Your task to perform on an android device: toggle improve location accuracy Image 0: 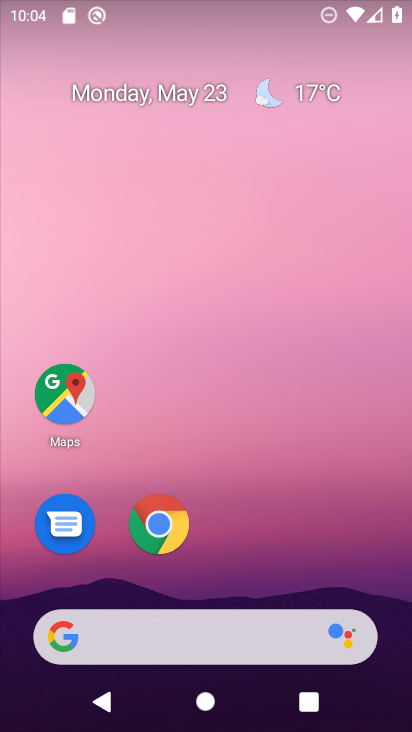
Step 0: drag from (218, 548) to (218, 171)
Your task to perform on an android device: toggle improve location accuracy Image 1: 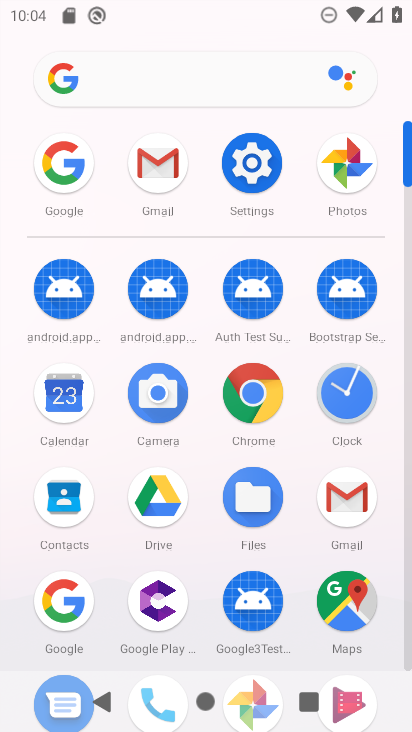
Step 1: click (233, 174)
Your task to perform on an android device: toggle improve location accuracy Image 2: 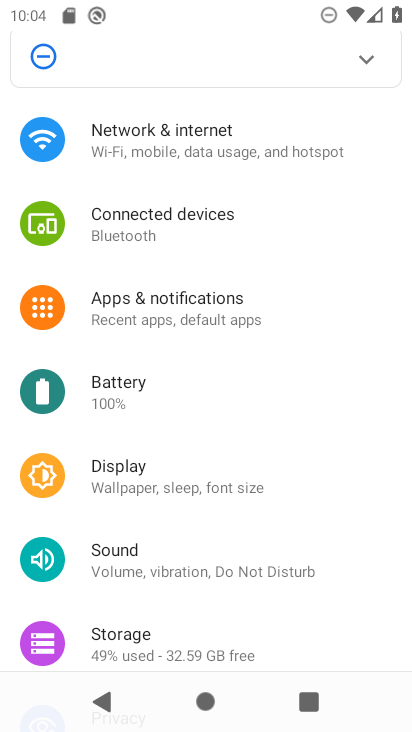
Step 2: drag from (217, 654) to (227, 352)
Your task to perform on an android device: toggle improve location accuracy Image 3: 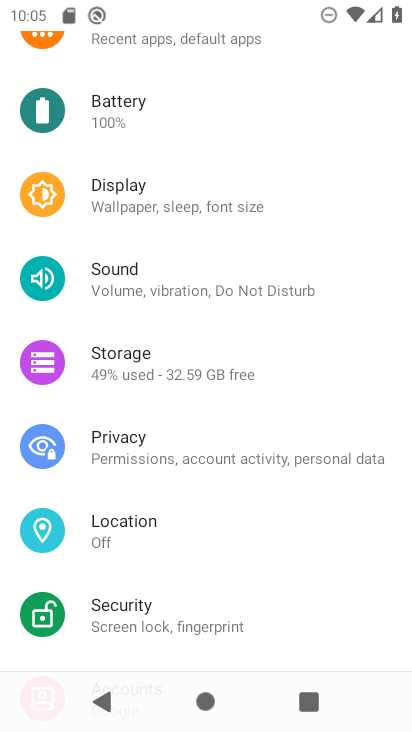
Step 3: click (214, 543)
Your task to perform on an android device: toggle improve location accuracy Image 4: 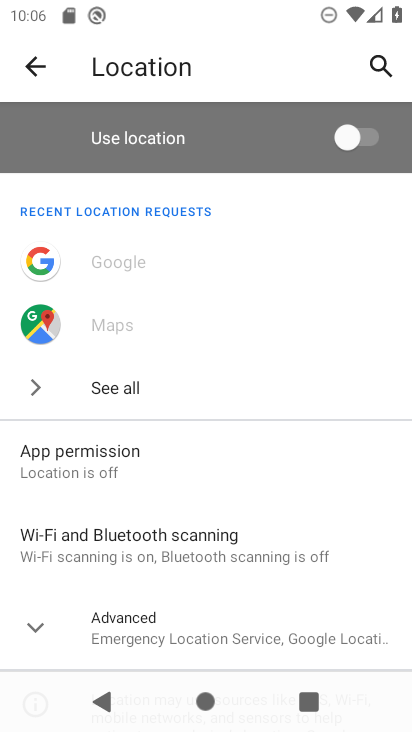
Step 4: drag from (239, 612) to (267, 159)
Your task to perform on an android device: toggle improve location accuracy Image 5: 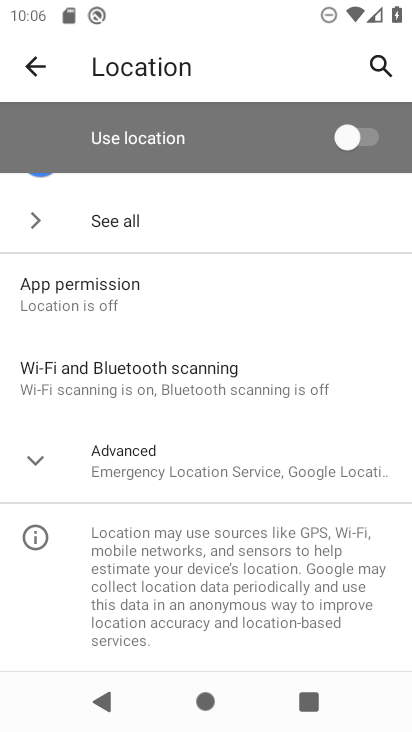
Step 5: click (180, 487)
Your task to perform on an android device: toggle improve location accuracy Image 6: 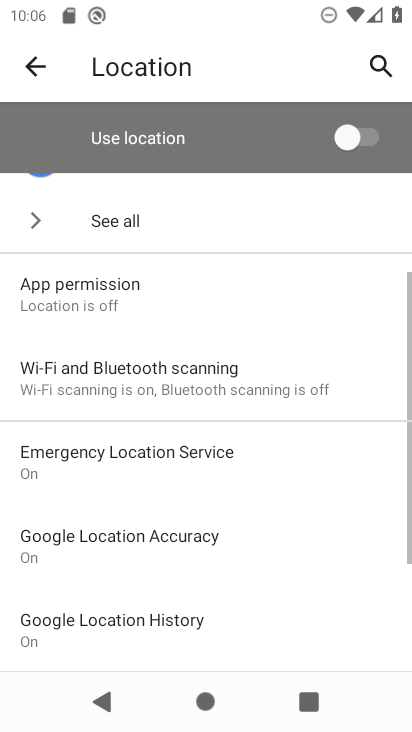
Step 6: drag from (215, 605) to (222, 513)
Your task to perform on an android device: toggle improve location accuracy Image 7: 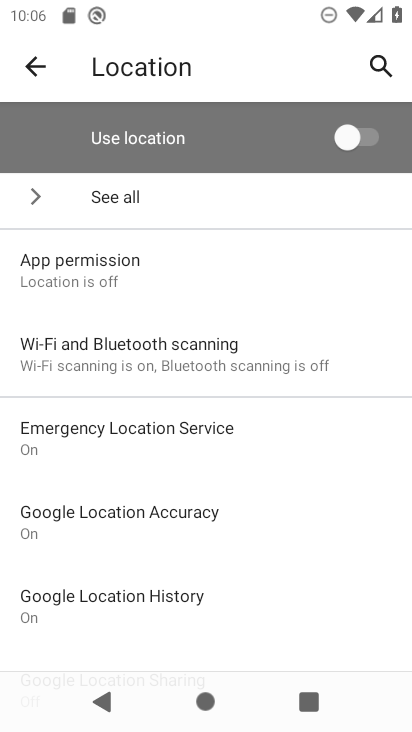
Step 7: click (206, 508)
Your task to perform on an android device: toggle improve location accuracy Image 8: 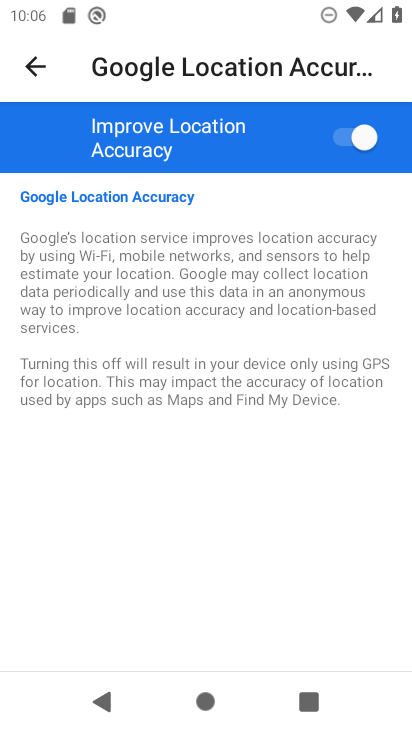
Step 8: click (349, 137)
Your task to perform on an android device: toggle improve location accuracy Image 9: 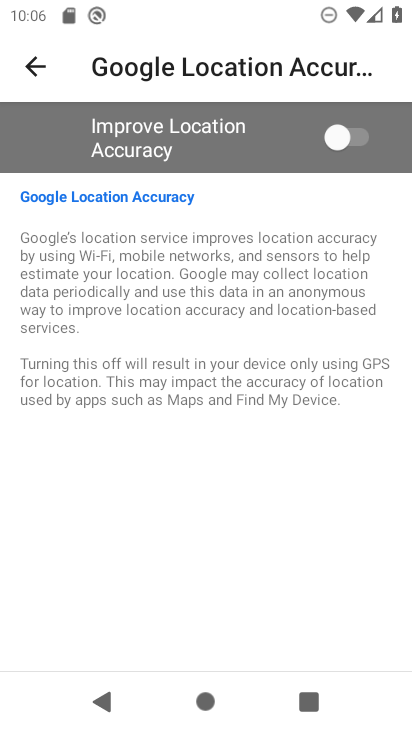
Step 9: task complete